Your task to perform on an android device: Go to Maps Image 0: 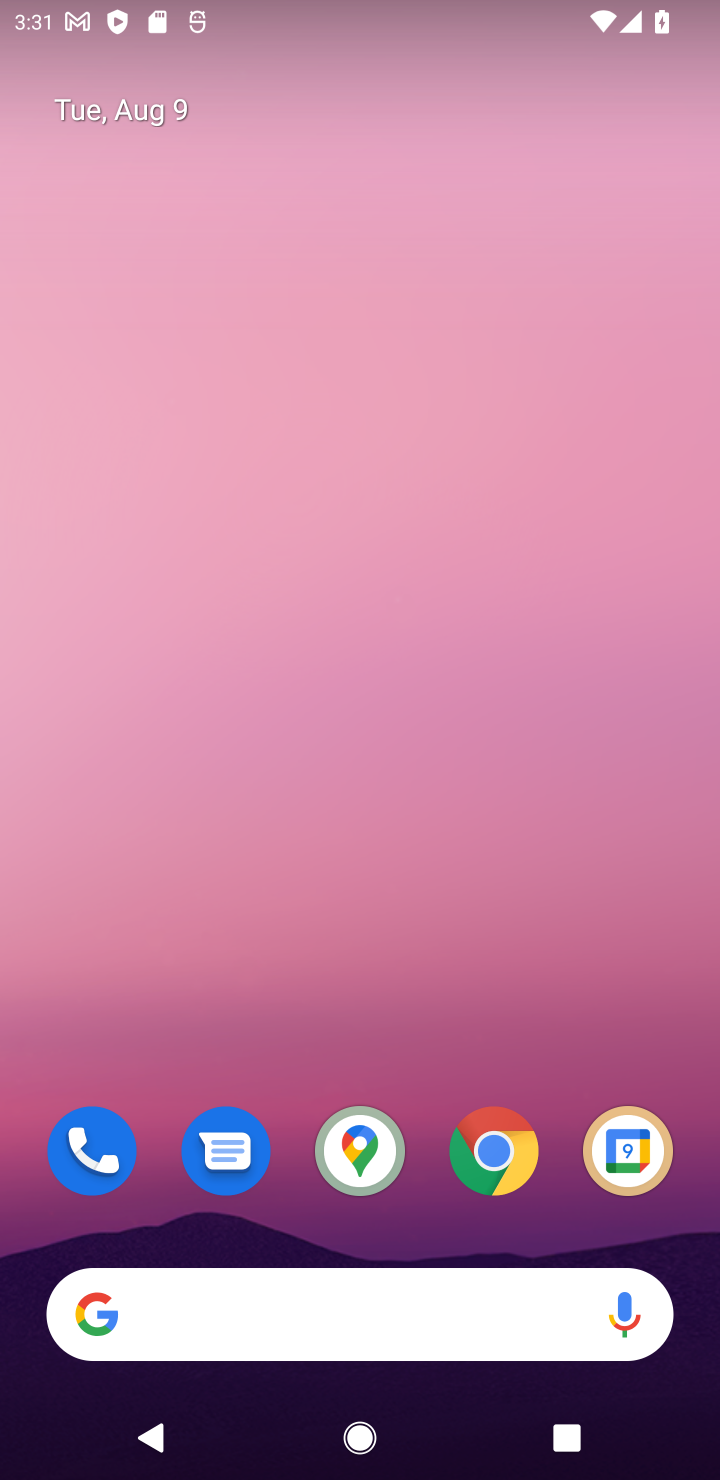
Step 0: click (575, 895)
Your task to perform on an android device: Go to Maps Image 1: 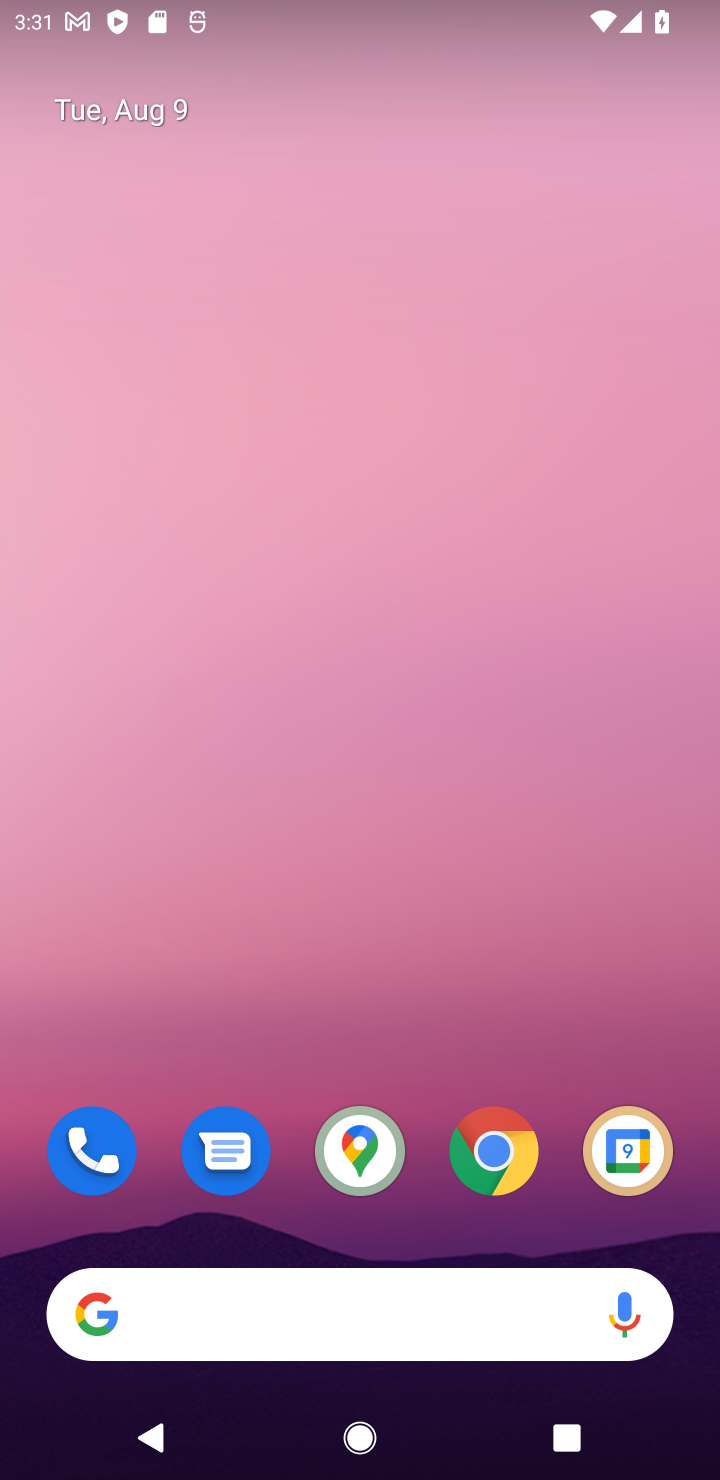
Step 1: click (354, 1166)
Your task to perform on an android device: Go to Maps Image 2: 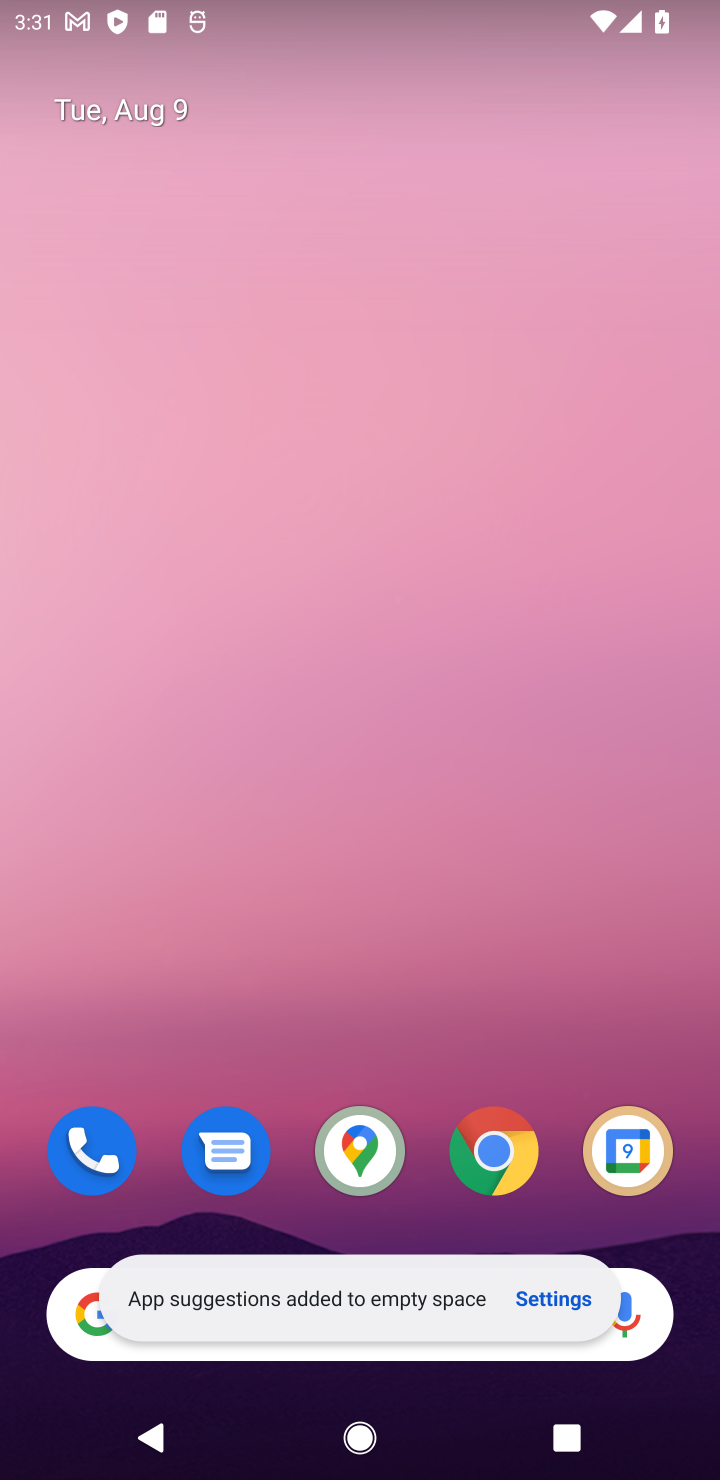
Step 2: click (354, 1166)
Your task to perform on an android device: Go to Maps Image 3: 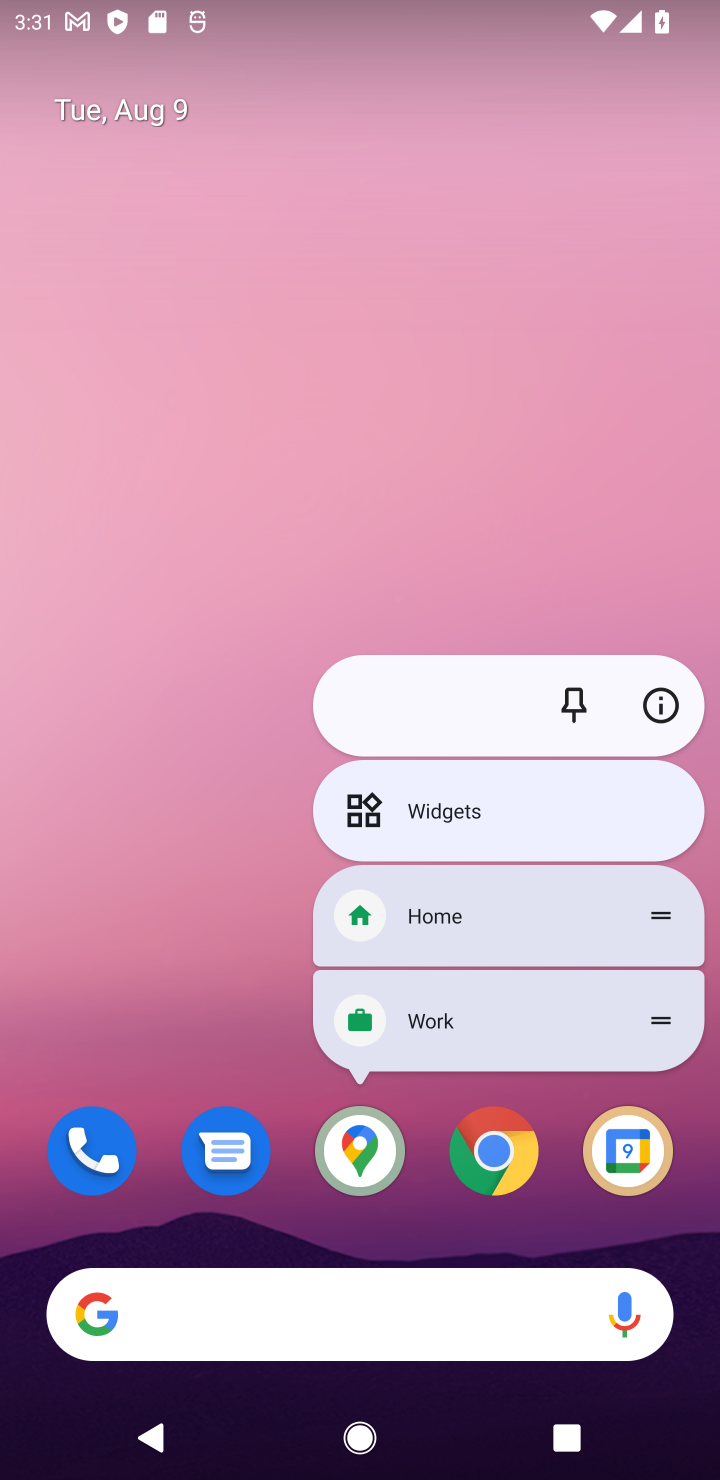
Step 3: click (354, 1166)
Your task to perform on an android device: Go to Maps Image 4: 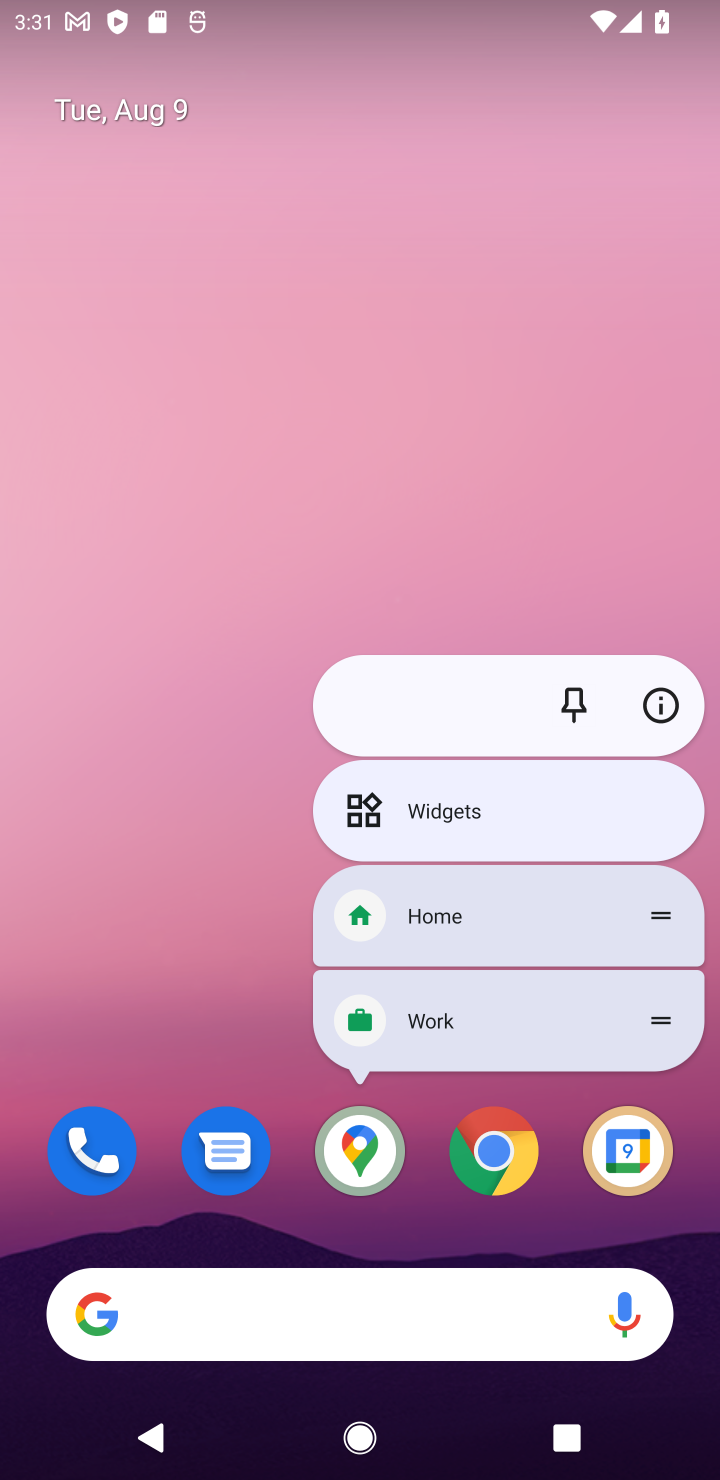
Step 4: click (354, 1166)
Your task to perform on an android device: Go to Maps Image 5: 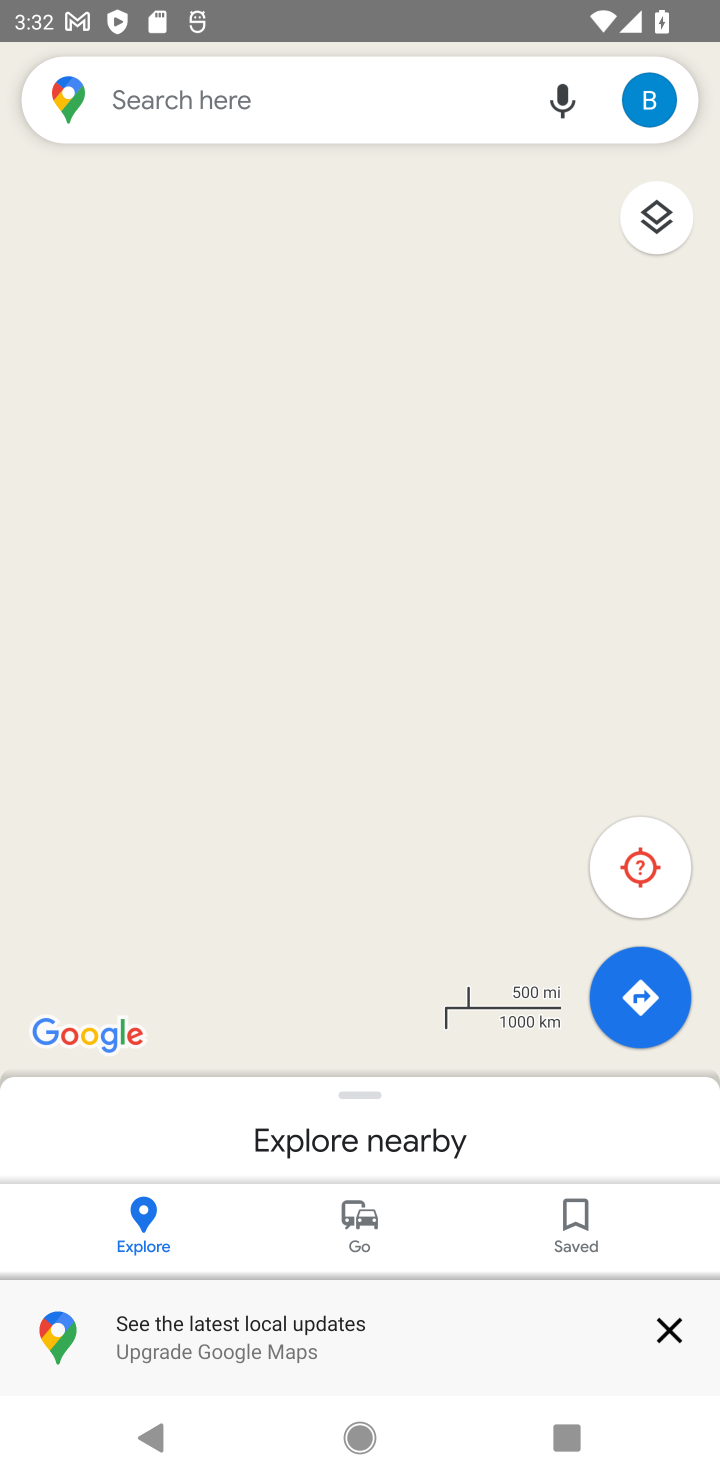
Step 5: task complete